Your task to perform on an android device: open app "Indeed Job Search" Image 0: 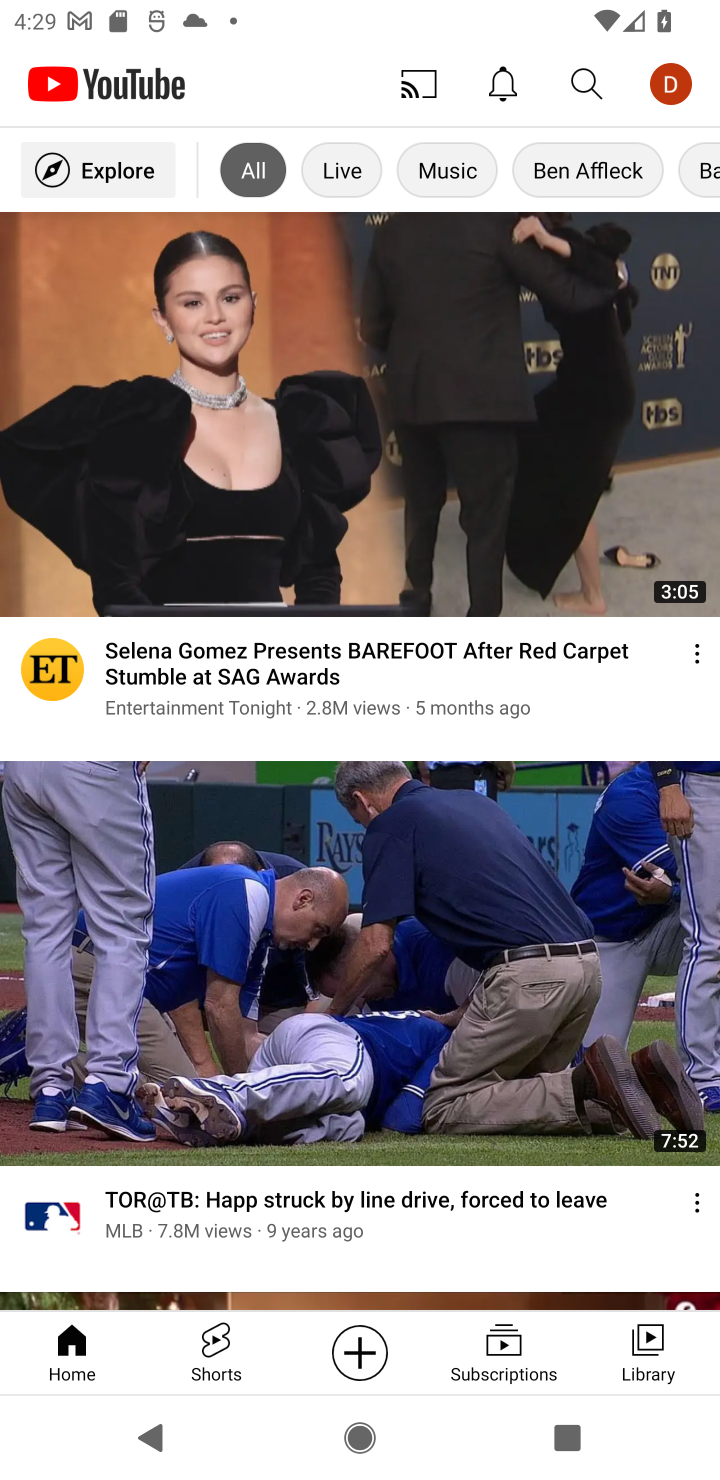
Step 0: press home button
Your task to perform on an android device: open app "Indeed Job Search" Image 1: 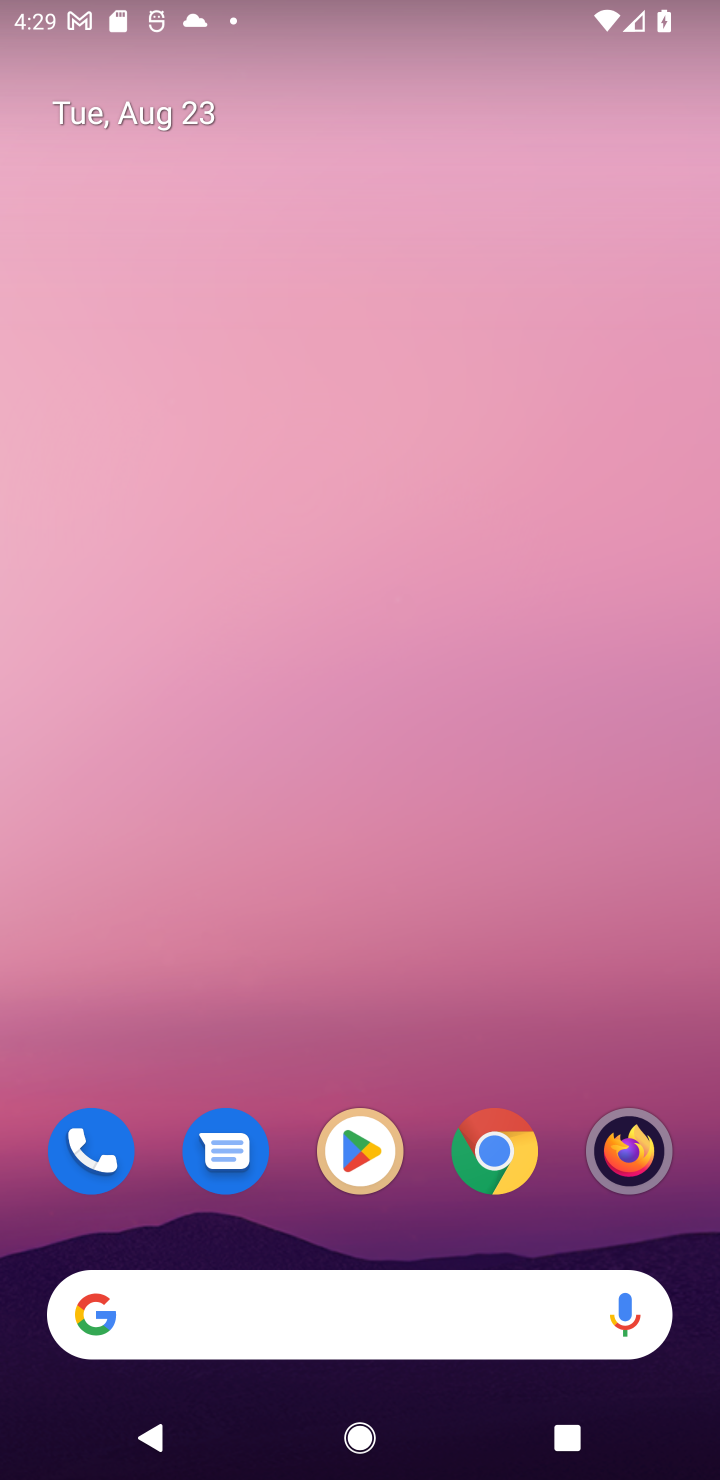
Step 1: click (360, 1150)
Your task to perform on an android device: open app "Indeed Job Search" Image 2: 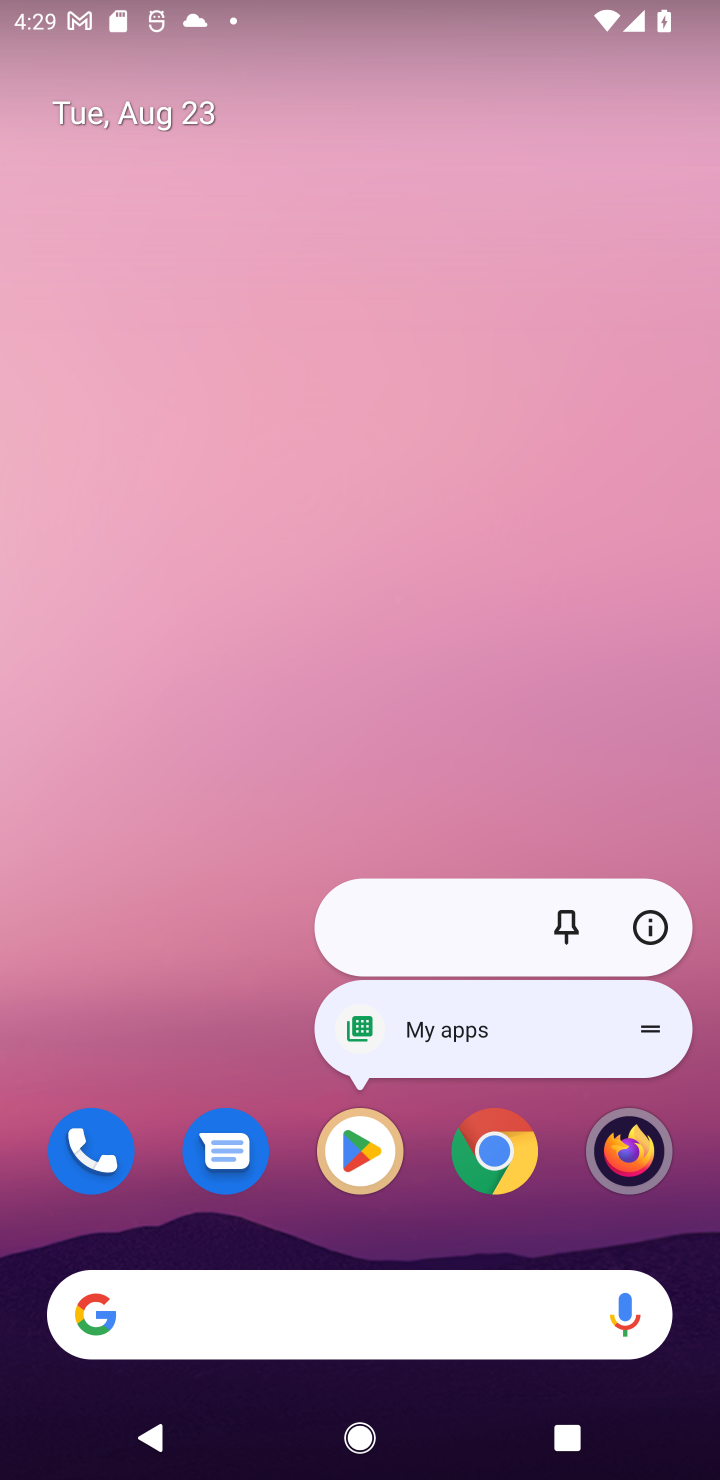
Step 2: click (360, 1152)
Your task to perform on an android device: open app "Indeed Job Search" Image 3: 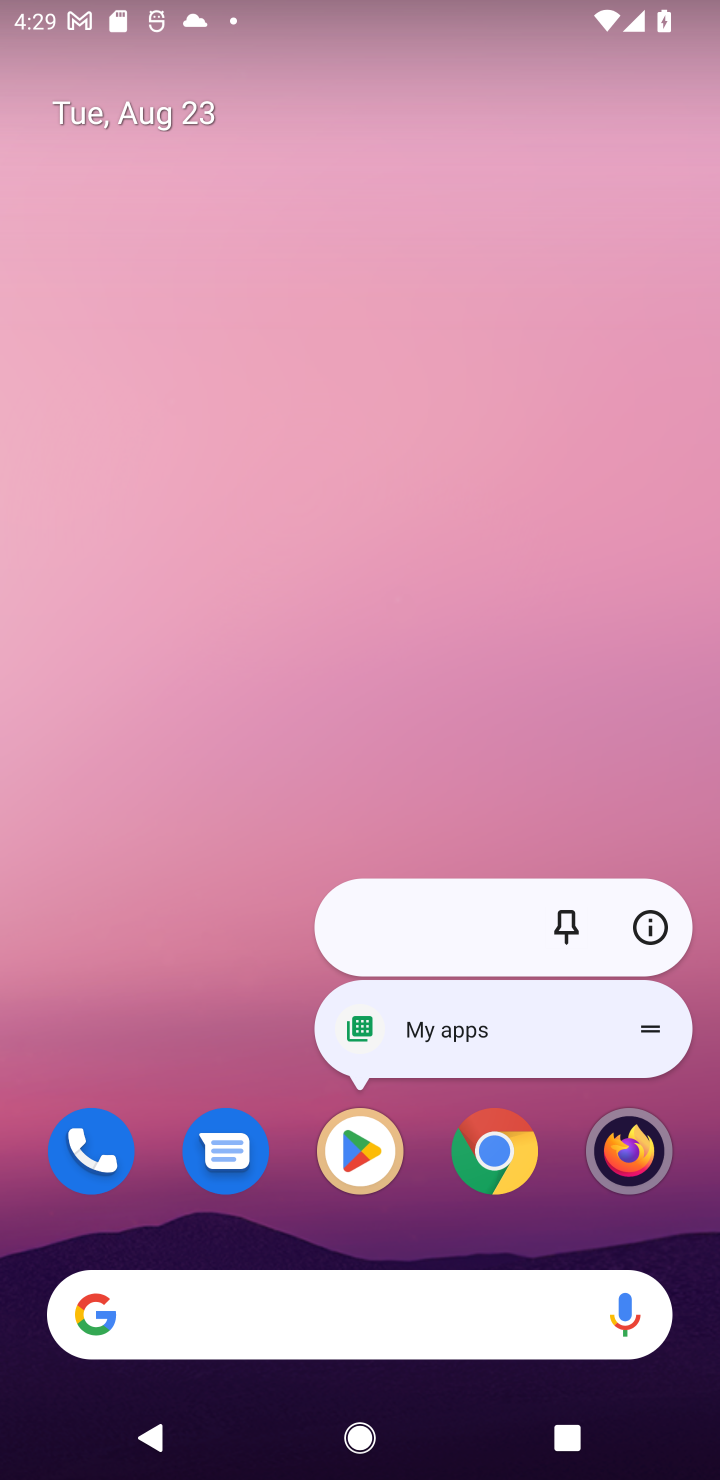
Step 3: click (360, 1156)
Your task to perform on an android device: open app "Indeed Job Search" Image 4: 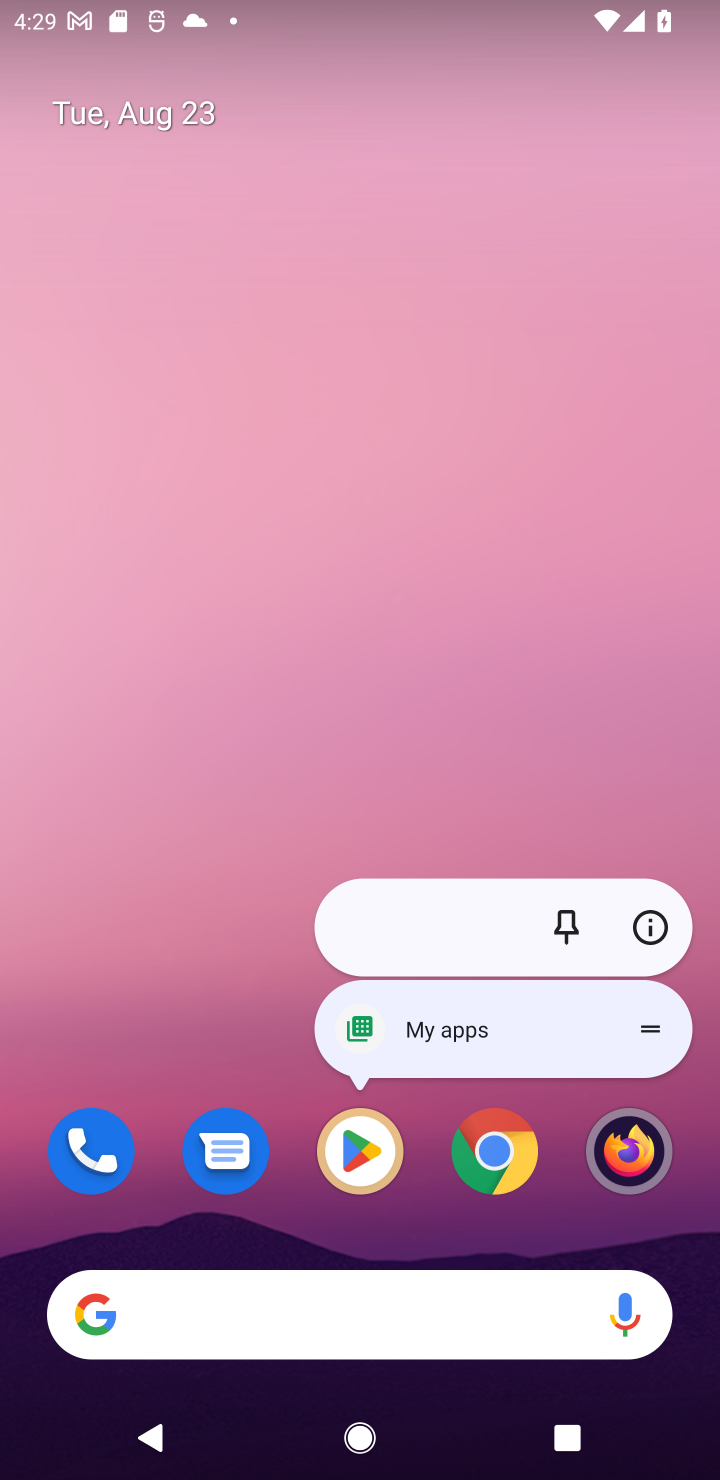
Step 4: click (360, 1164)
Your task to perform on an android device: open app "Indeed Job Search" Image 5: 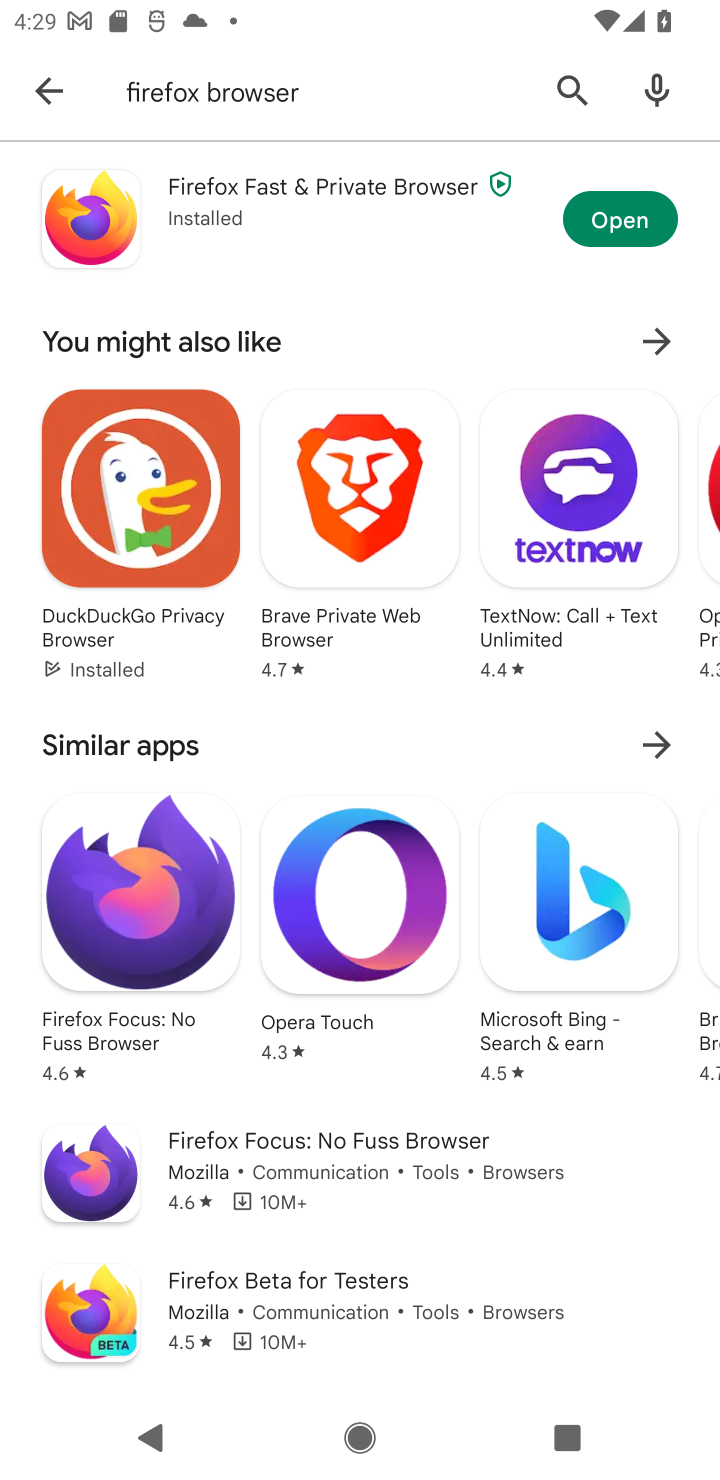
Step 5: click (573, 78)
Your task to perform on an android device: open app "Indeed Job Search" Image 6: 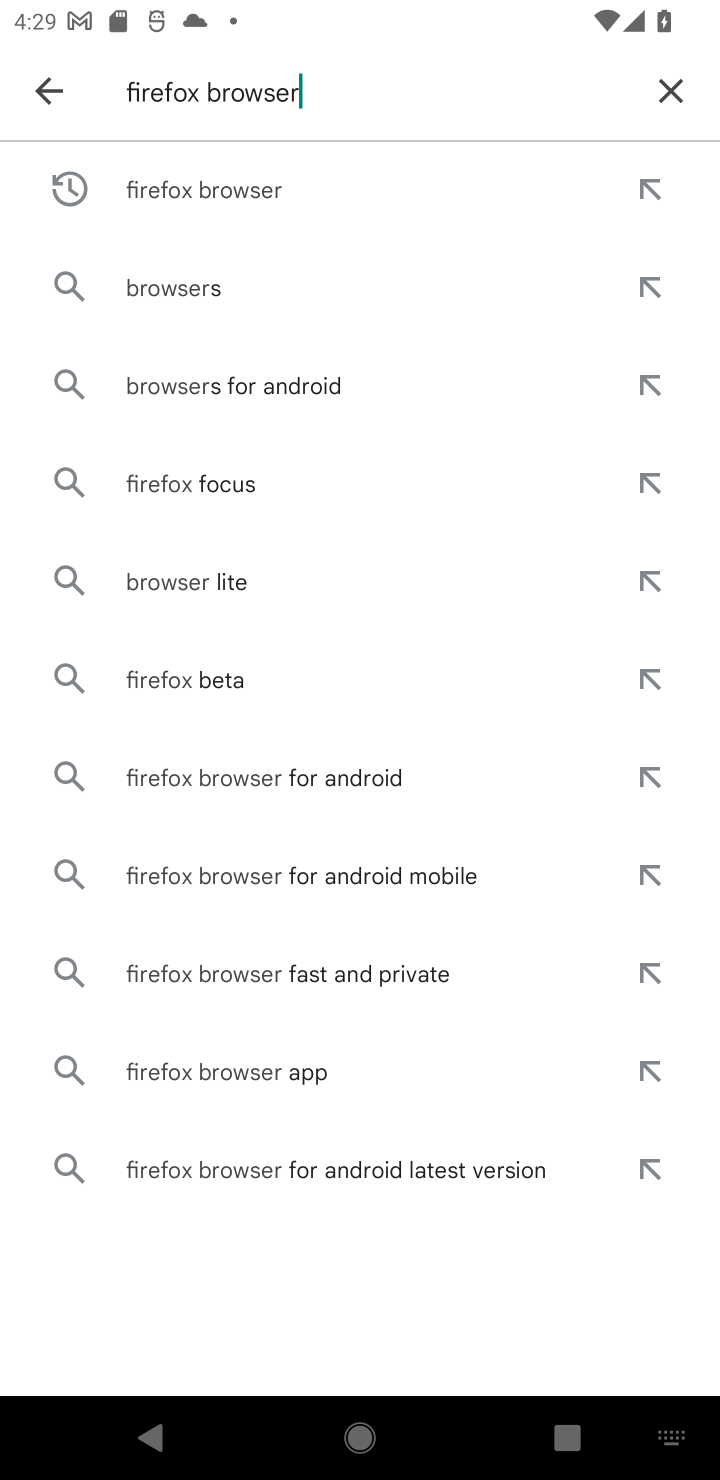
Step 6: click (670, 79)
Your task to perform on an android device: open app "Indeed Job Search" Image 7: 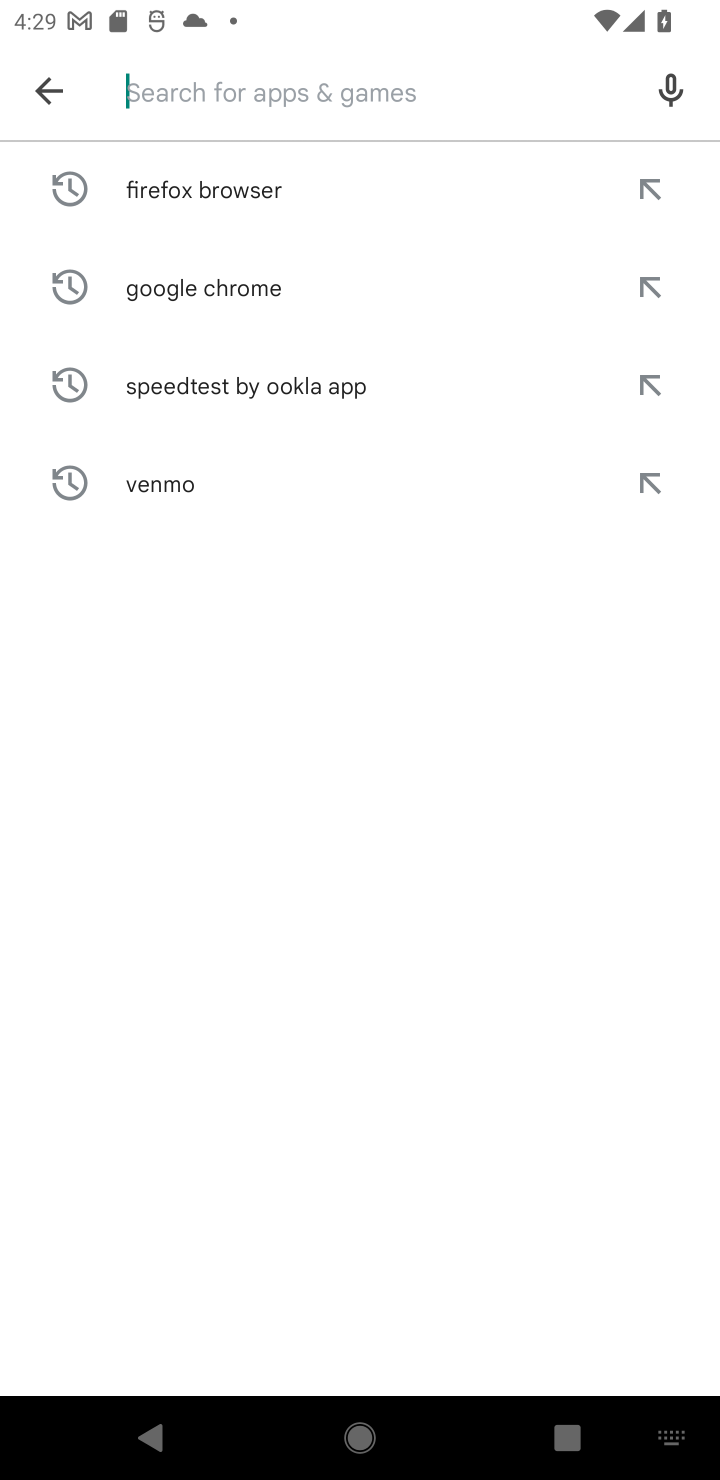
Step 7: type "Indeed Job Search"
Your task to perform on an android device: open app "Indeed Job Search" Image 8: 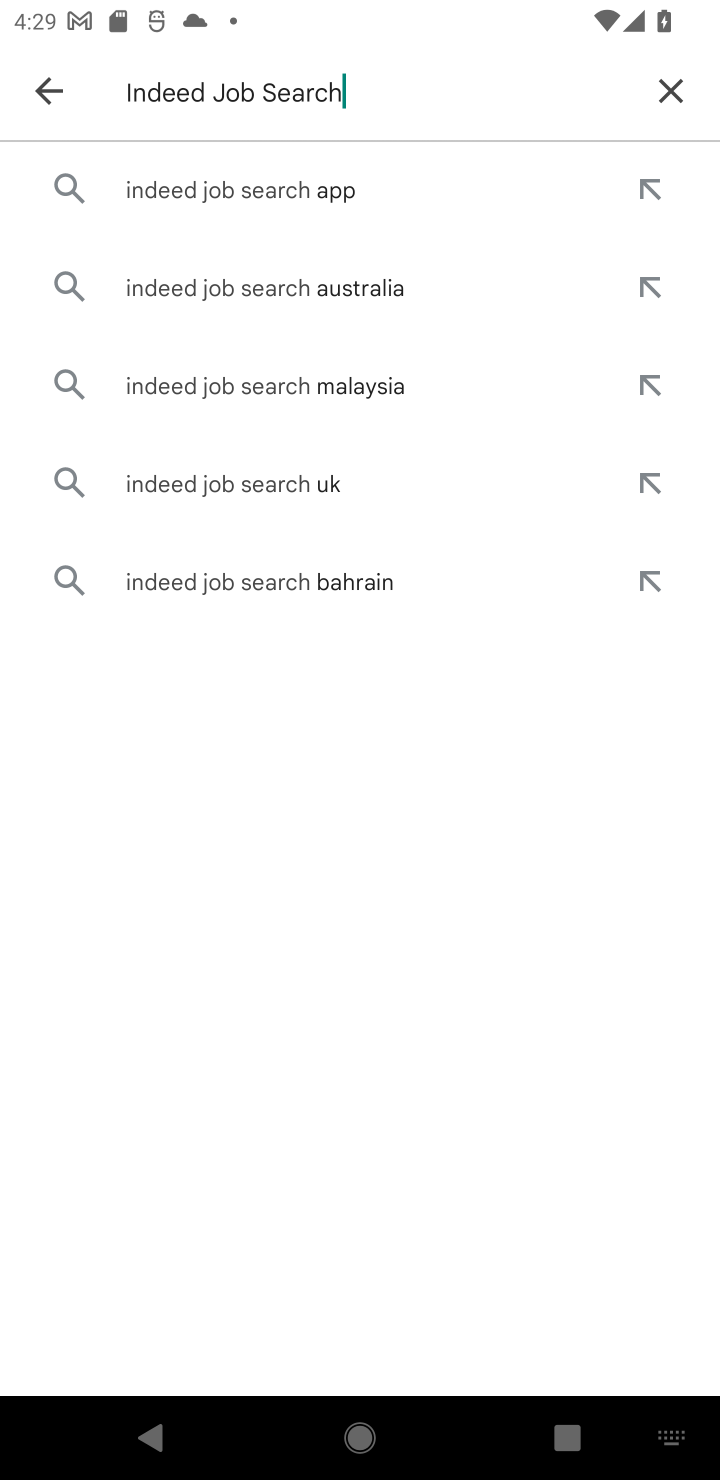
Step 8: click (331, 193)
Your task to perform on an android device: open app "Indeed Job Search" Image 9: 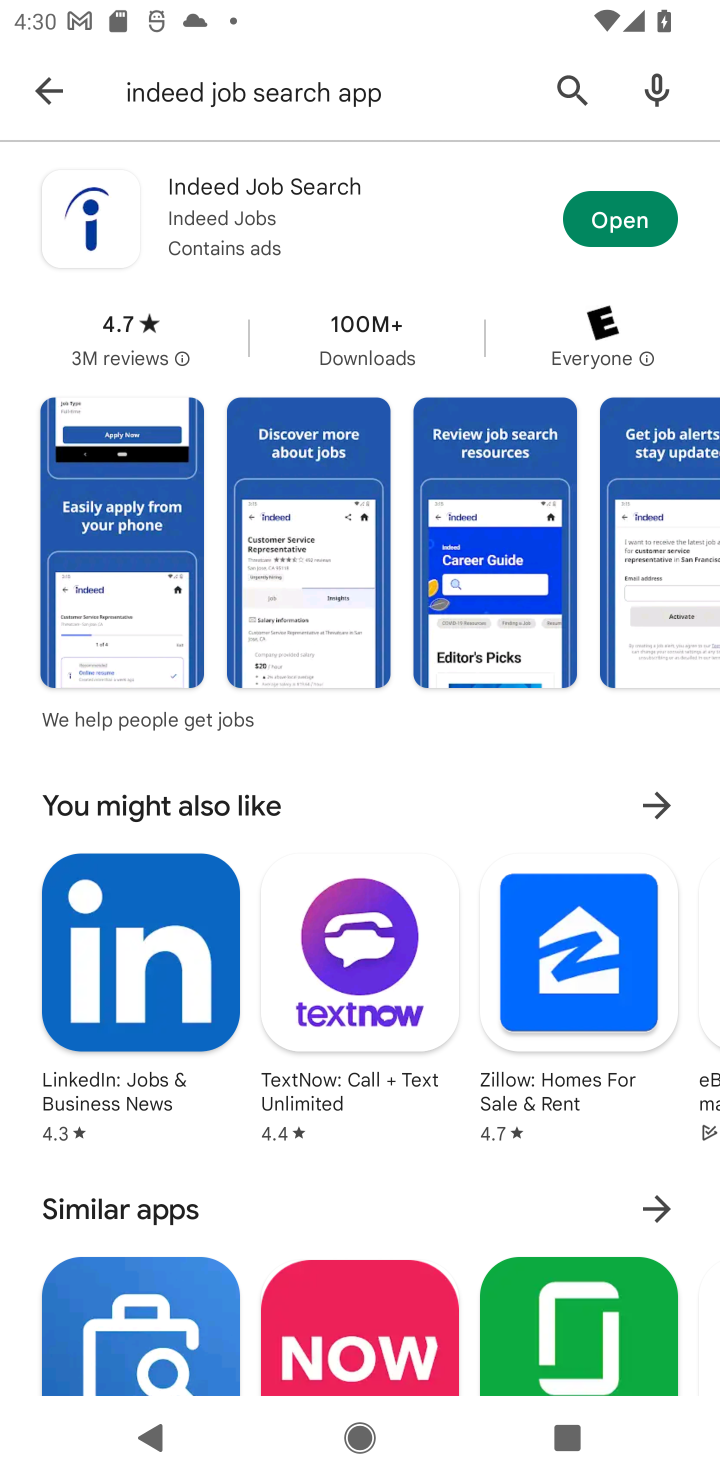
Step 9: click (652, 211)
Your task to perform on an android device: open app "Indeed Job Search" Image 10: 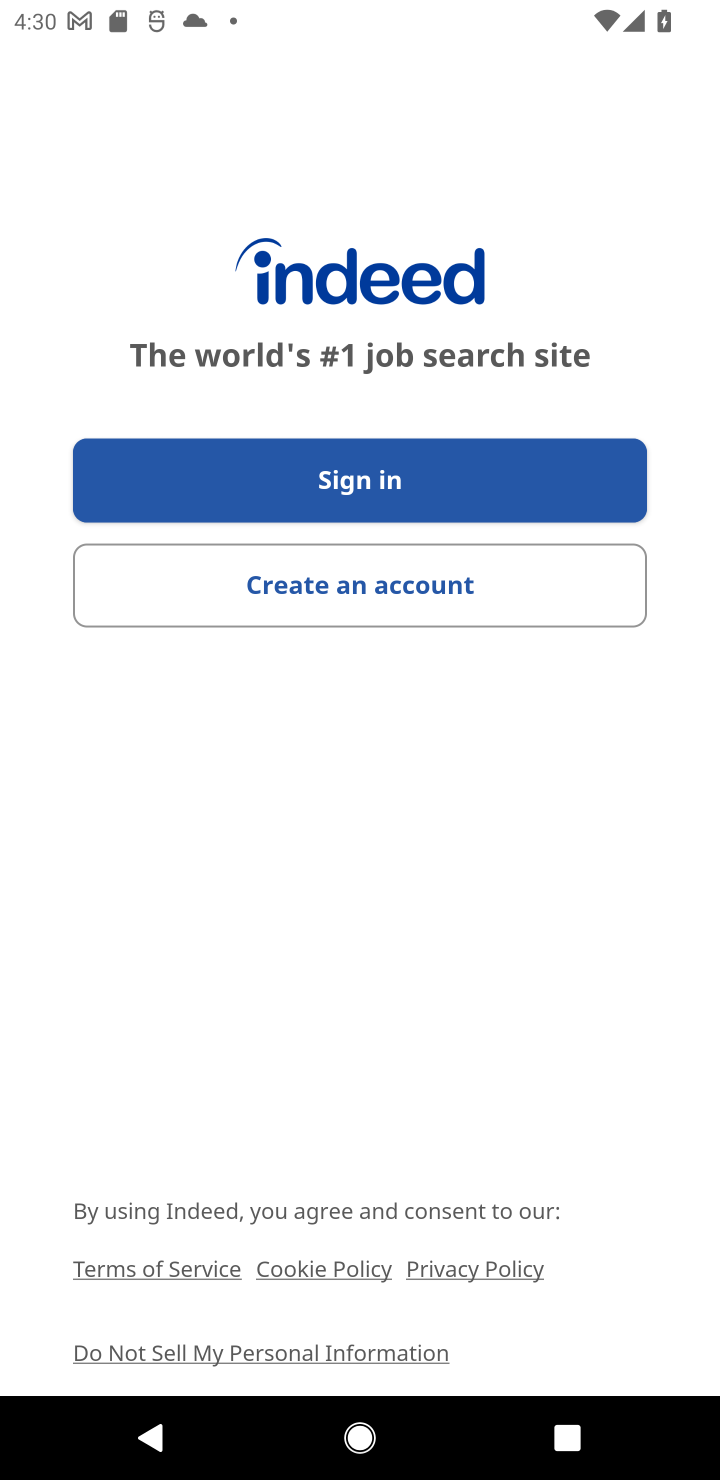
Step 10: task complete